Your task to perform on an android device: Turn on the flashlight Image 0: 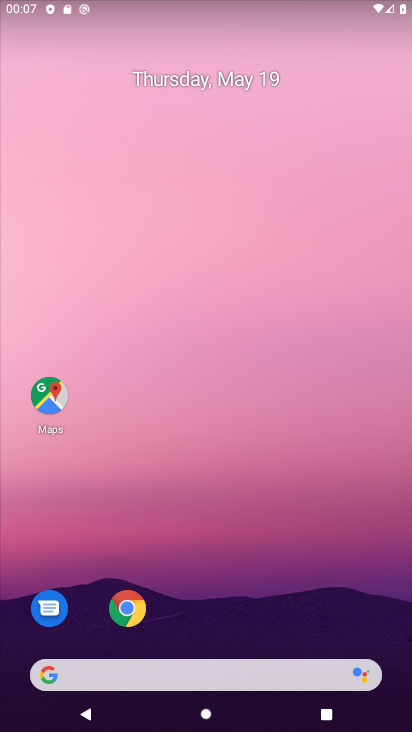
Step 0: drag from (283, 678) to (383, 217)
Your task to perform on an android device: Turn on the flashlight Image 1: 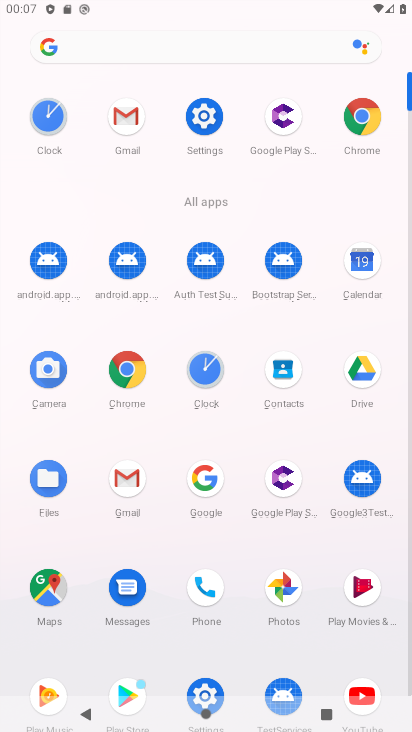
Step 1: click (192, 117)
Your task to perform on an android device: Turn on the flashlight Image 2: 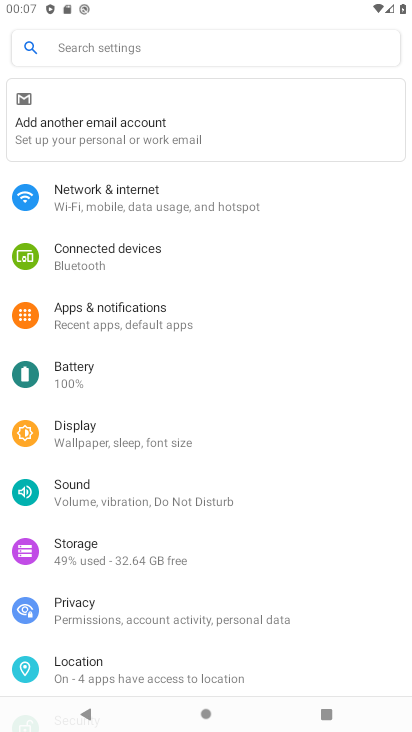
Step 2: click (71, 47)
Your task to perform on an android device: Turn on the flashlight Image 3: 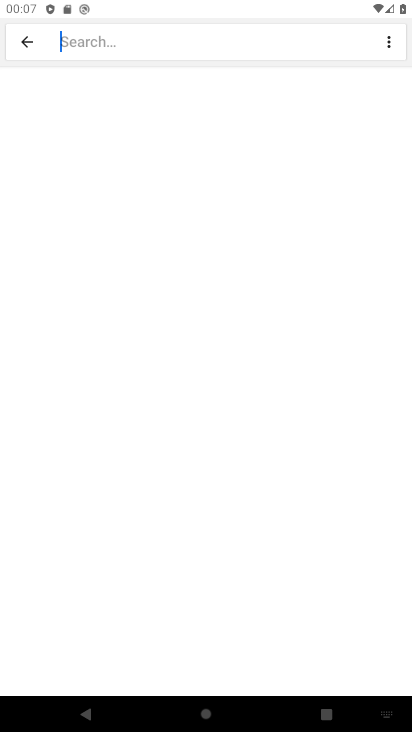
Step 3: drag from (374, 707) to (392, 604)
Your task to perform on an android device: Turn on the flashlight Image 4: 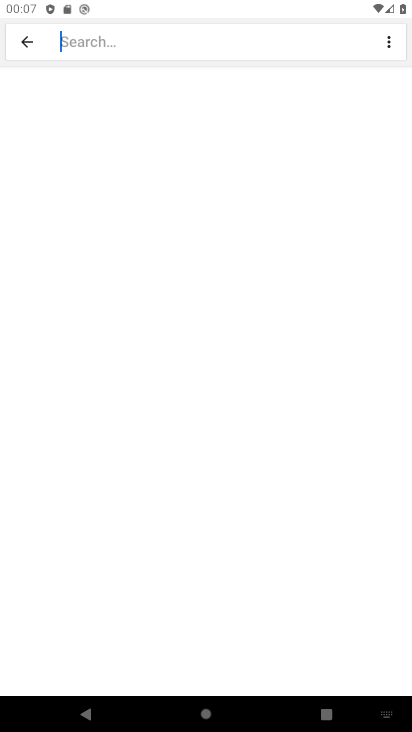
Step 4: click (387, 707)
Your task to perform on an android device: Turn on the flashlight Image 5: 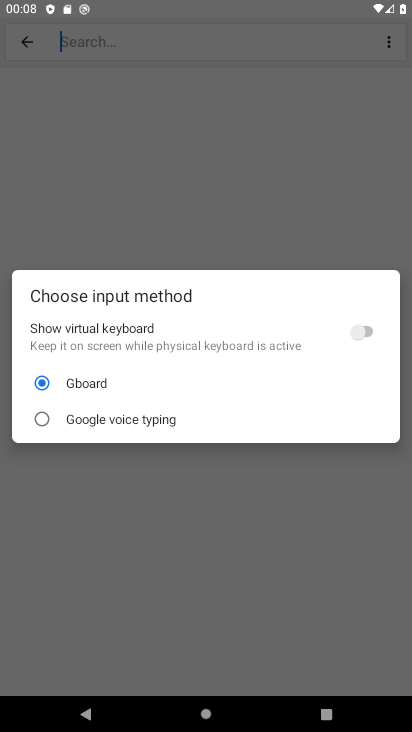
Step 5: click (352, 332)
Your task to perform on an android device: Turn on the flashlight Image 6: 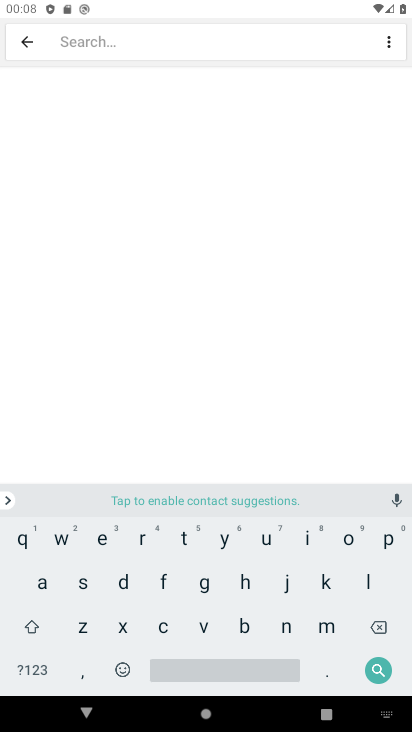
Step 6: click (165, 573)
Your task to perform on an android device: Turn on the flashlight Image 7: 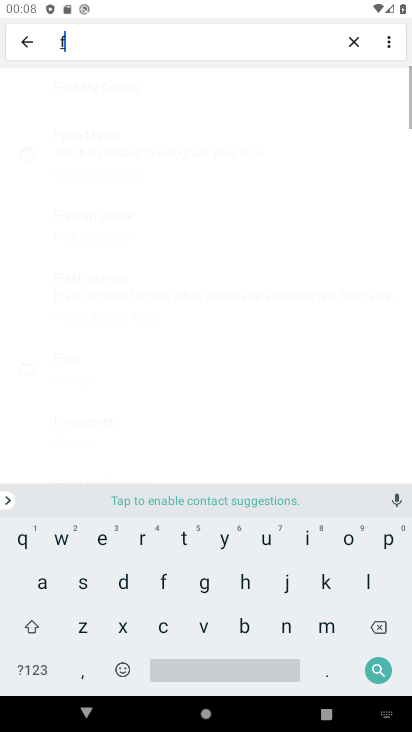
Step 7: click (365, 580)
Your task to perform on an android device: Turn on the flashlight Image 8: 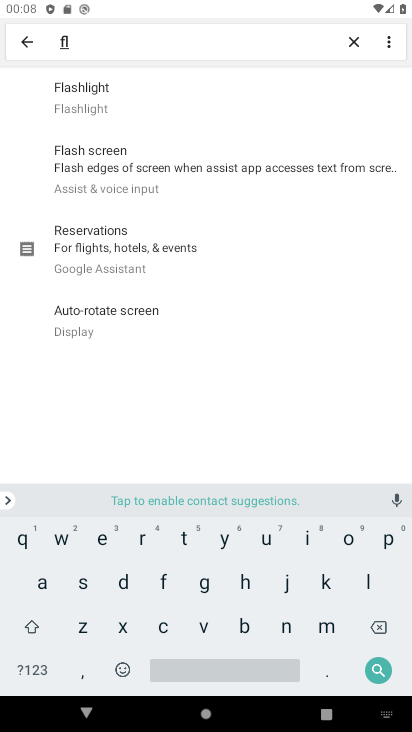
Step 8: click (101, 108)
Your task to perform on an android device: Turn on the flashlight Image 9: 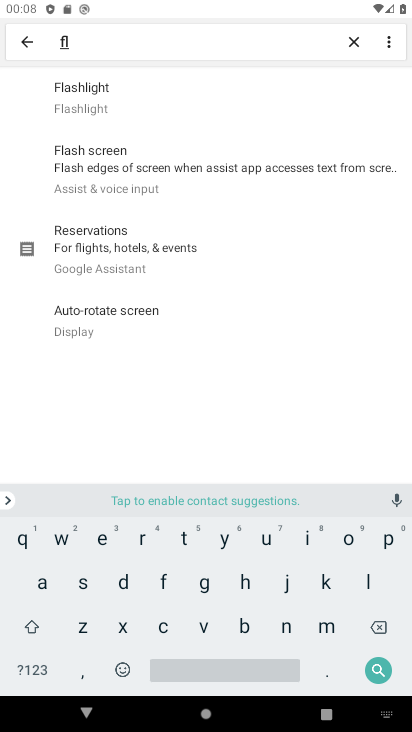
Step 9: click (134, 111)
Your task to perform on an android device: Turn on the flashlight Image 10: 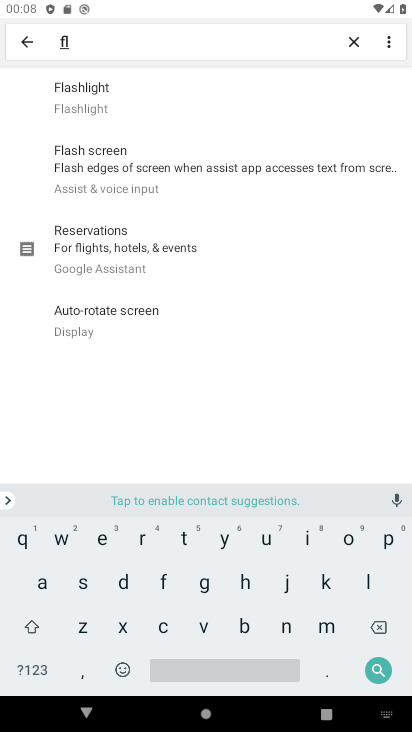
Step 10: click (157, 125)
Your task to perform on an android device: Turn on the flashlight Image 11: 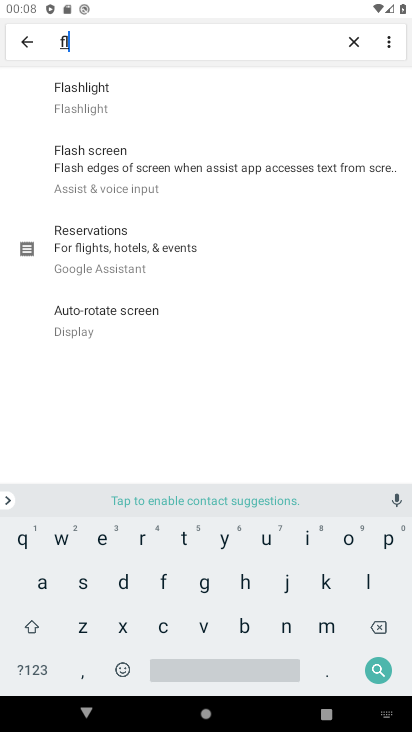
Step 11: task complete